Your task to perform on an android device: change alarm snooze length Image 0: 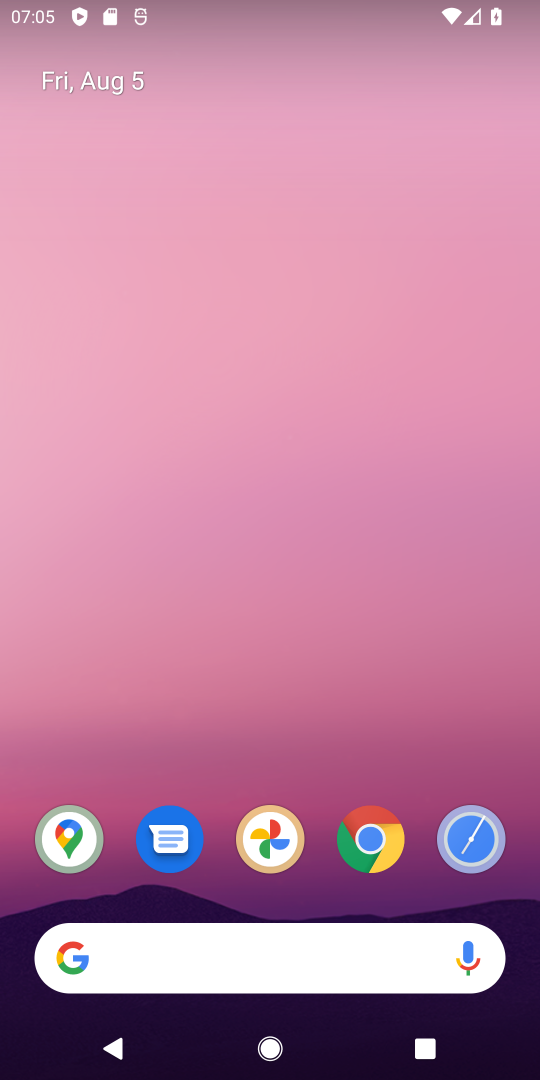
Step 0: drag from (326, 910) to (343, 127)
Your task to perform on an android device: change alarm snooze length Image 1: 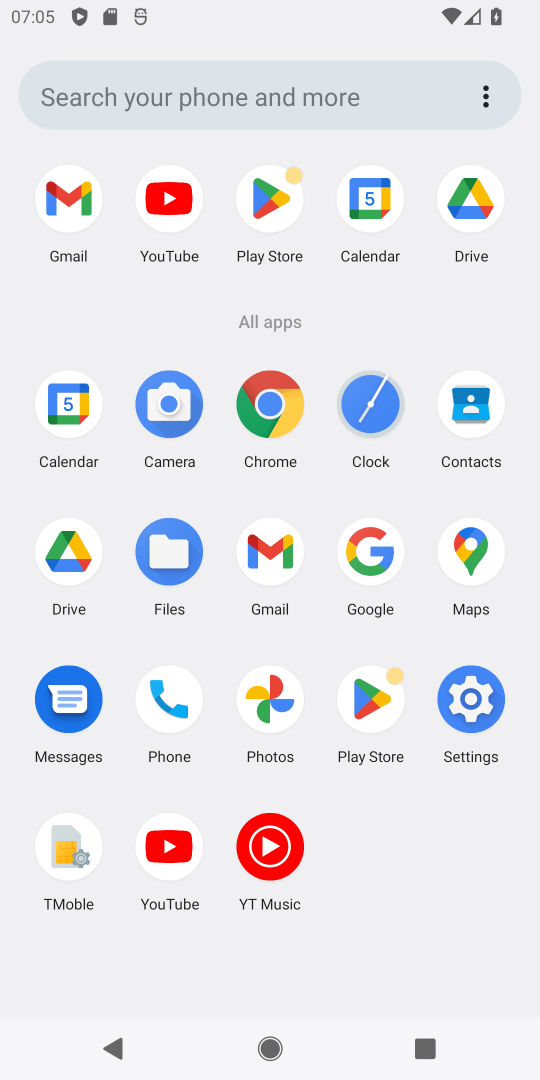
Step 1: click (382, 409)
Your task to perform on an android device: change alarm snooze length Image 2: 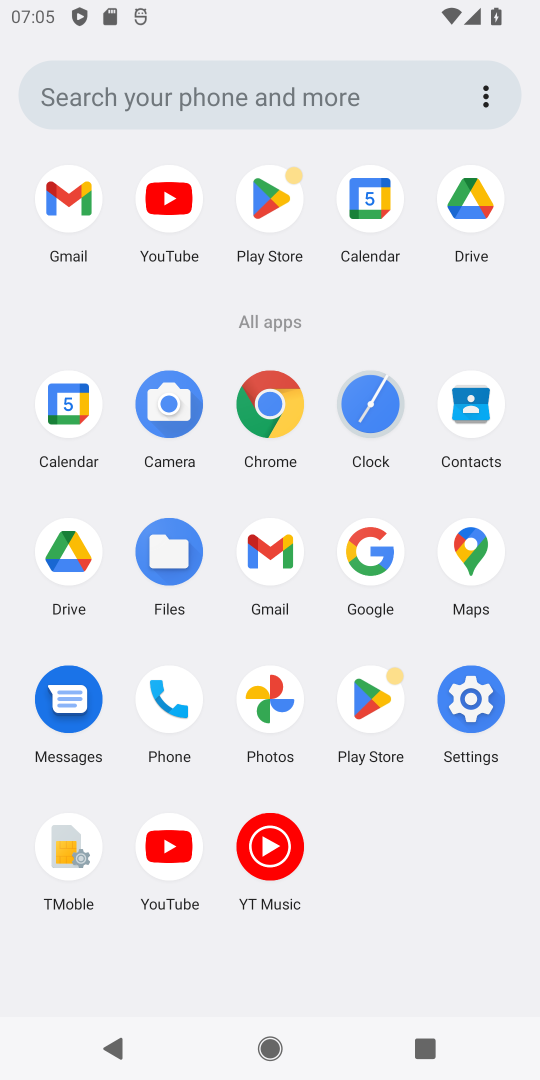
Step 2: click (386, 407)
Your task to perform on an android device: change alarm snooze length Image 3: 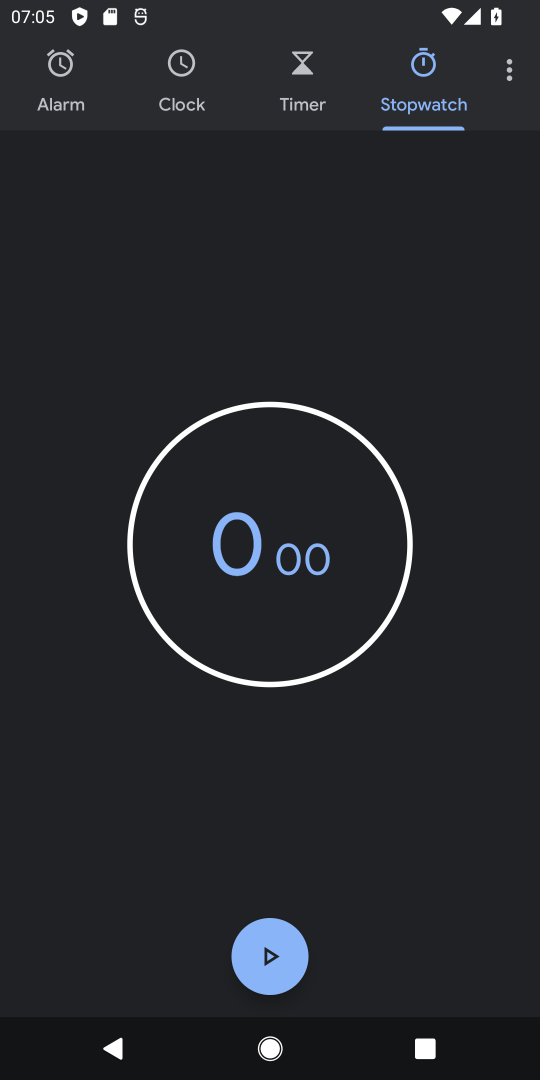
Step 3: click (508, 77)
Your task to perform on an android device: change alarm snooze length Image 4: 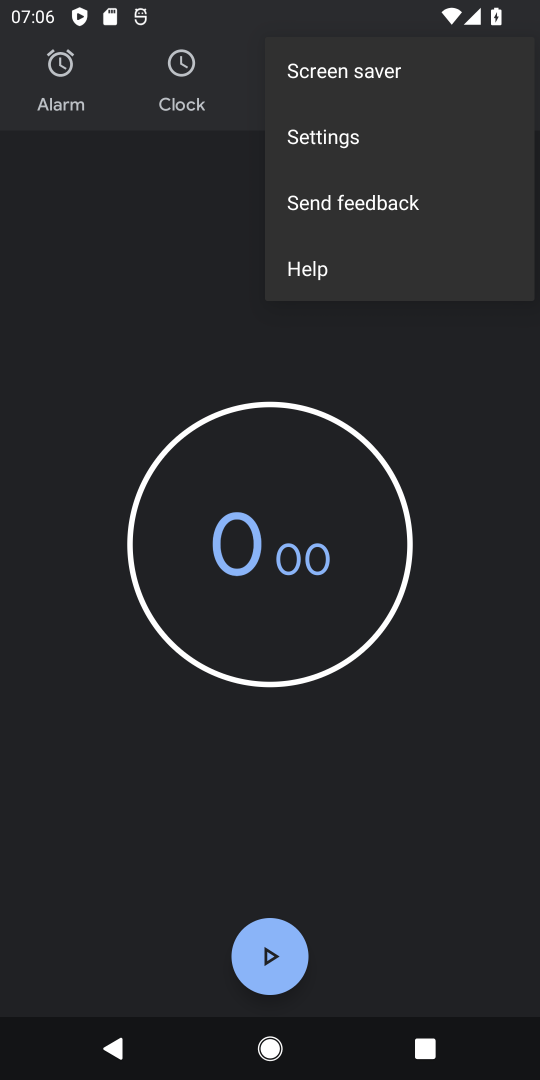
Step 4: click (342, 136)
Your task to perform on an android device: change alarm snooze length Image 5: 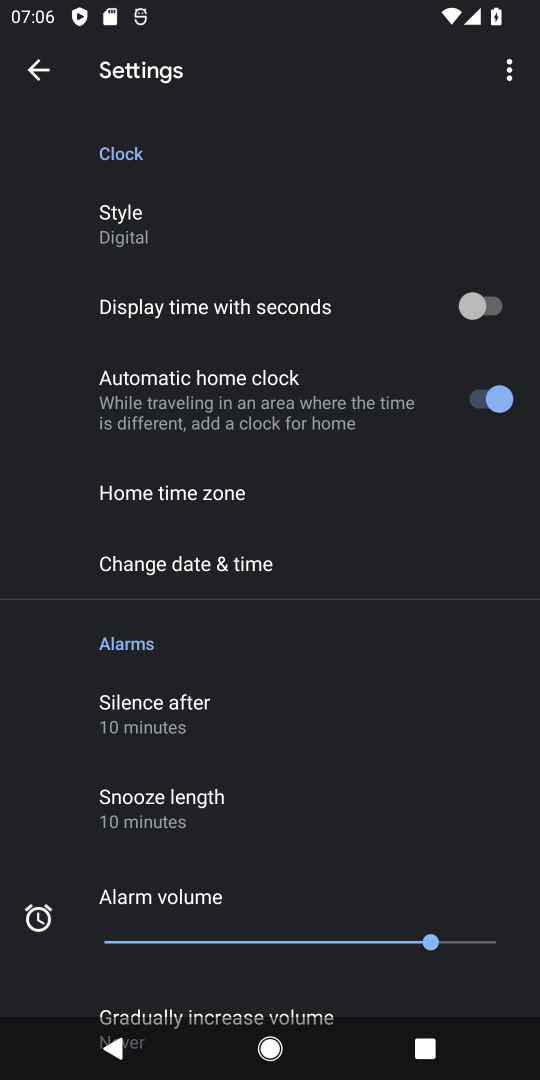
Step 5: drag from (197, 850) to (187, 619)
Your task to perform on an android device: change alarm snooze length Image 6: 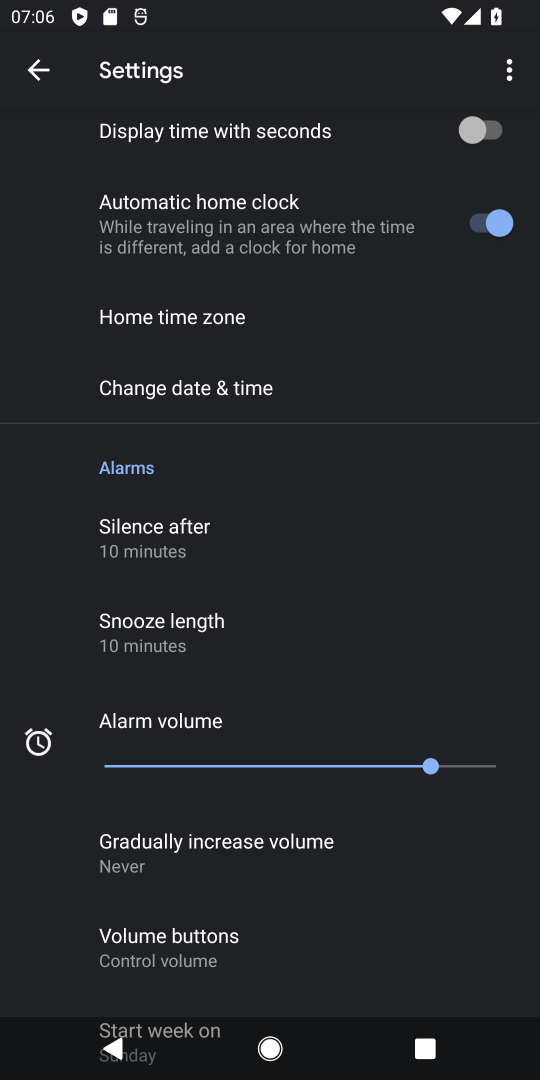
Step 6: click (136, 622)
Your task to perform on an android device: change alarm snooze length Image 7: 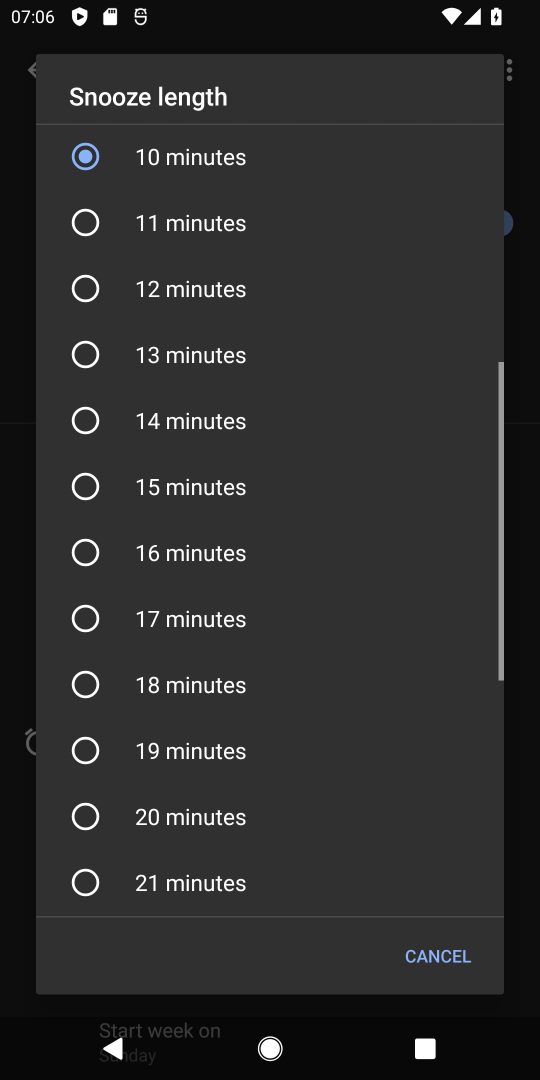
Step 7: click (93, 812)
Your task to perform on an android device: change alarm snooze length Image 8: 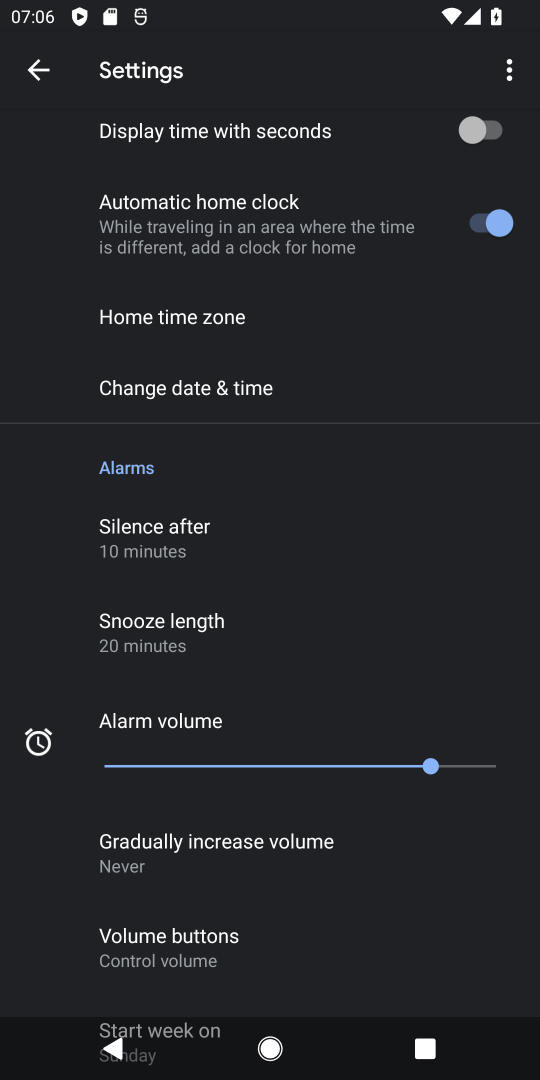
Step 8: task complete